Your task to perform on an android device: clear history in the chrome app Image 0: 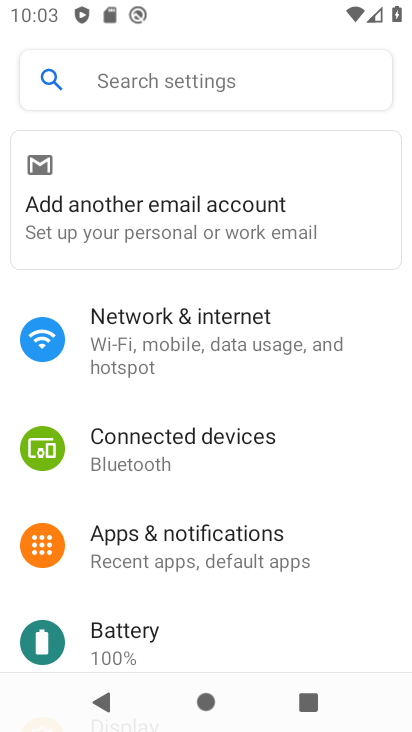
Step 0: press home button
Your task to perform on an android device: clear history in the chrome app Image 1: 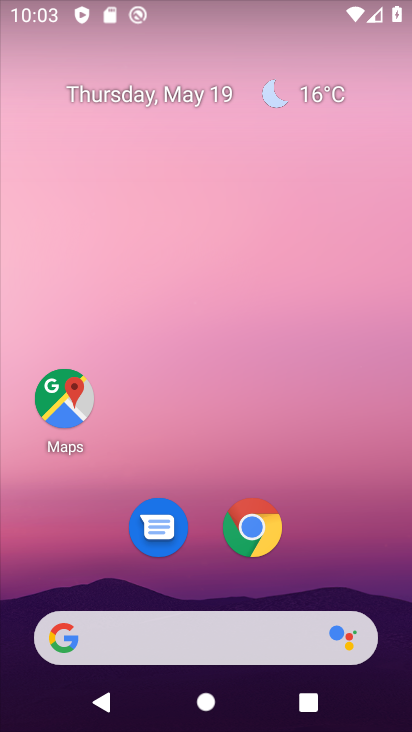
Step 1: click (247, 530)
Your task to perform on an android device: clear history in the chrome app Image 2: 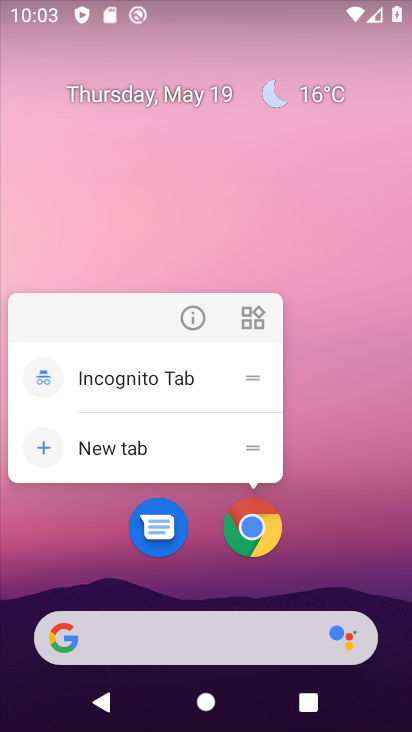
Step 2: click (247, 530)
Your task to perform on an android device: clear history in the chrome app Image 3: 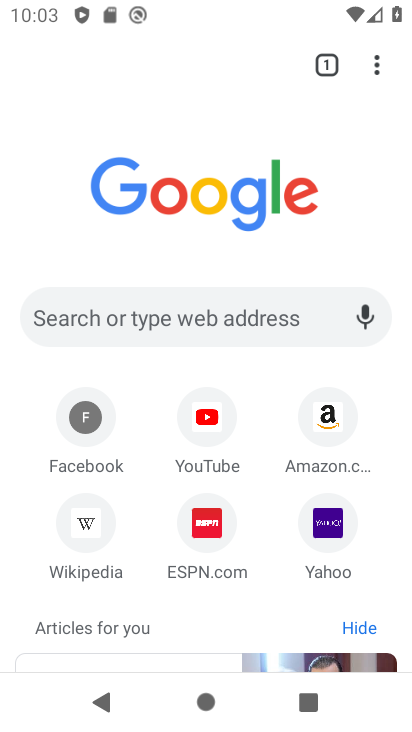
Step 3: click (374, 64)
Your task to perform on an android device: clear history in the chrome app Image 4: 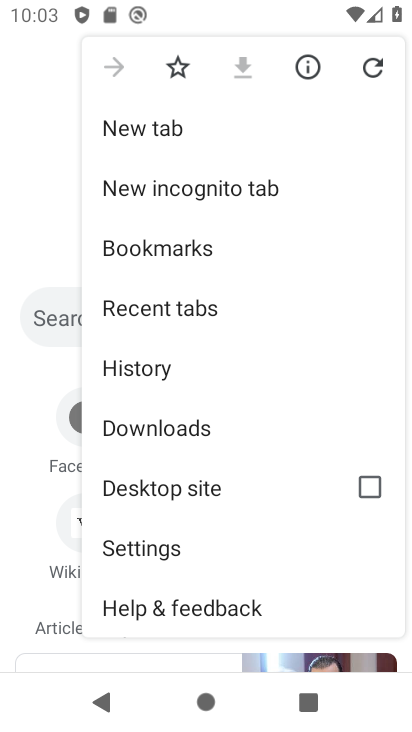
Step 4: click (168, 543)
Your task to perform on an android device: clear history in the chrome app Image 5: 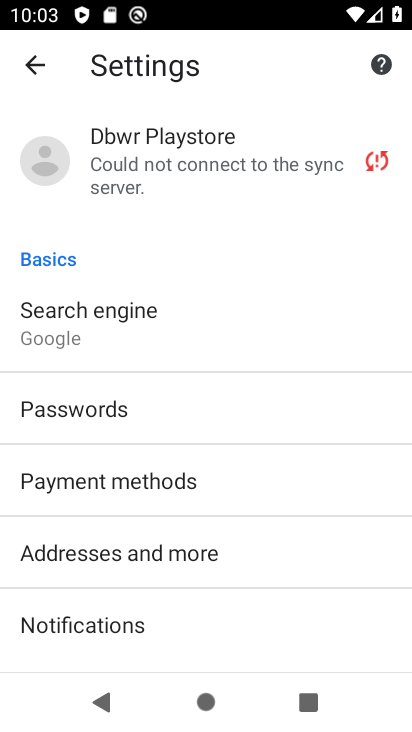
Step 5: click (34, 66)
Your task to perform on an android device: clear history in the chrome app Image 6: 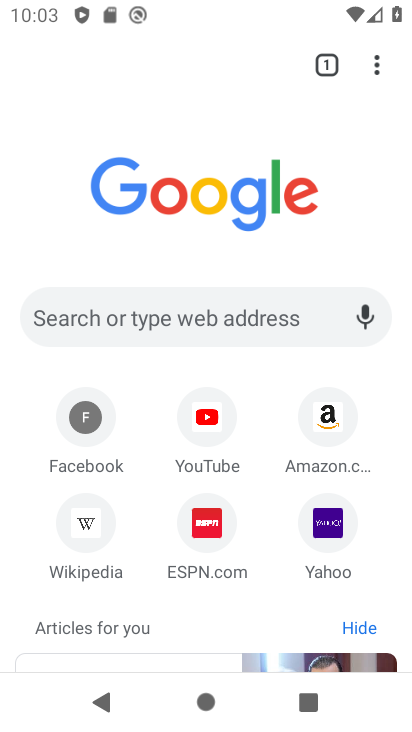
Step 6: click (377, 63)
Your task to perform on an android device: clear history in the chrome app Image 7: 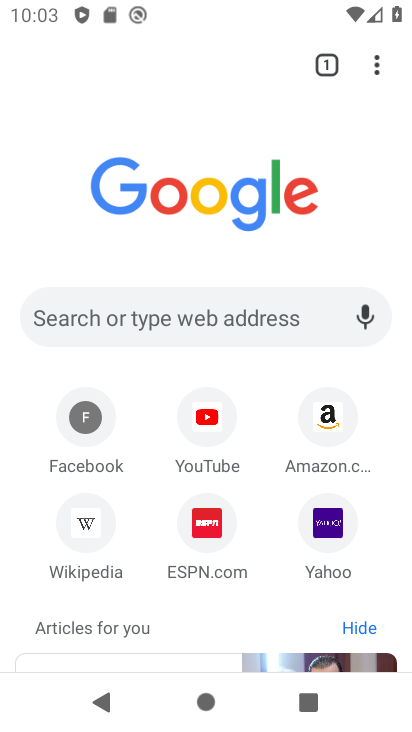
Step 7: click (383, 62)
Your task to perform on an android device: clear history in the chrome app Image 8: 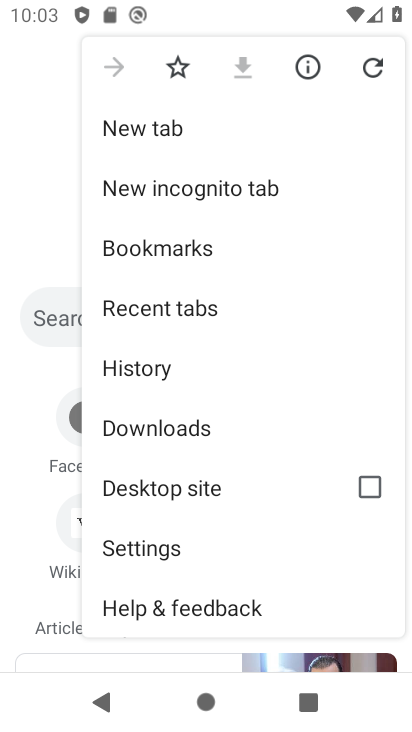
Step 8: click (158, 378)
Your task to perform on an android device: clear history in the chrome app Image 9: 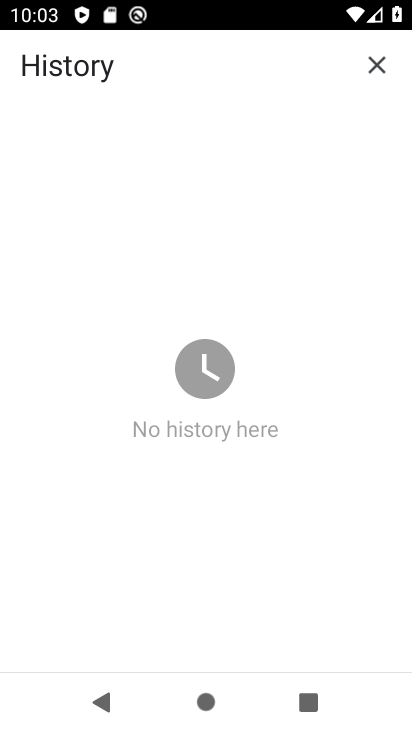
Step 9: task complete